Your task to perform on an android device: turn off priority inbox in the gmail app Image 0: 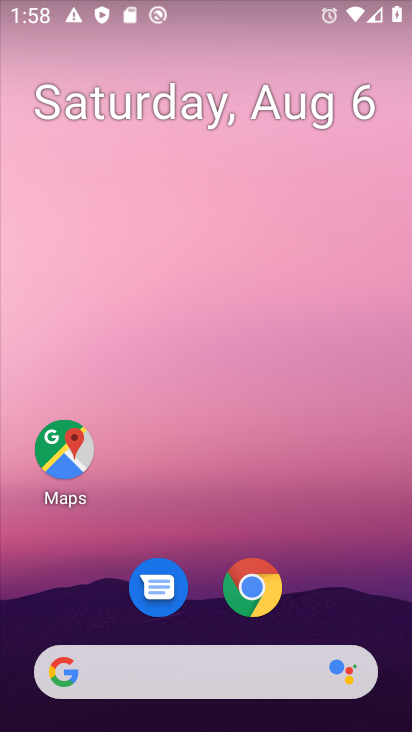
Step 0: drag from (207, 538) to (210, 215)
Your task to perform on an android device: turn off priority inbox in the gmail app Image 1: 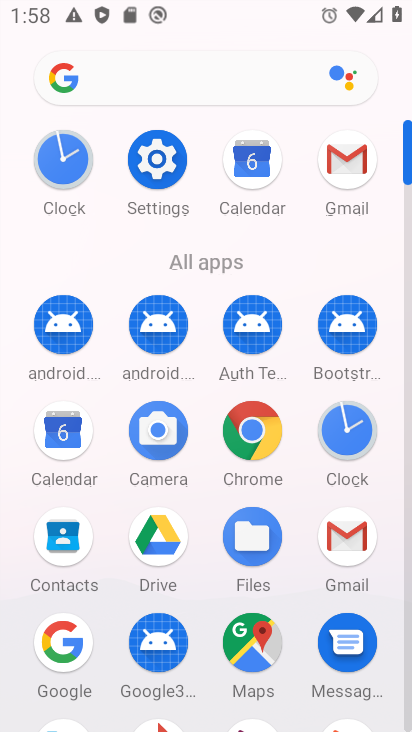
Step 1: click (329, 170)
Your task to perform on an android device: turn off priority inbox in the gmail app Image 2: 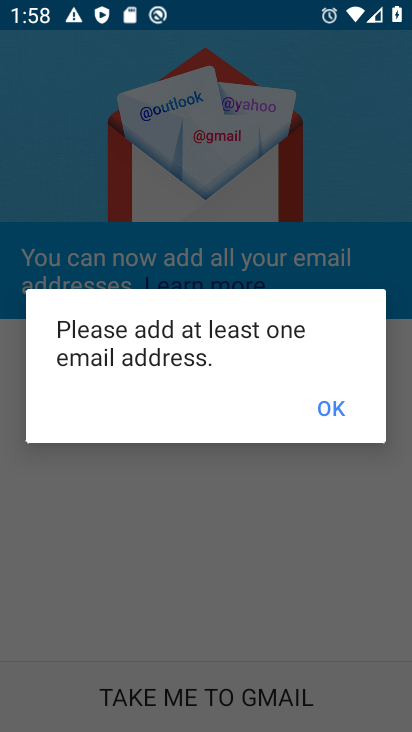
Step 2: click (340, 398)
Your task to perform on an android device: turn off priority inbox in the gmail app Image 3: 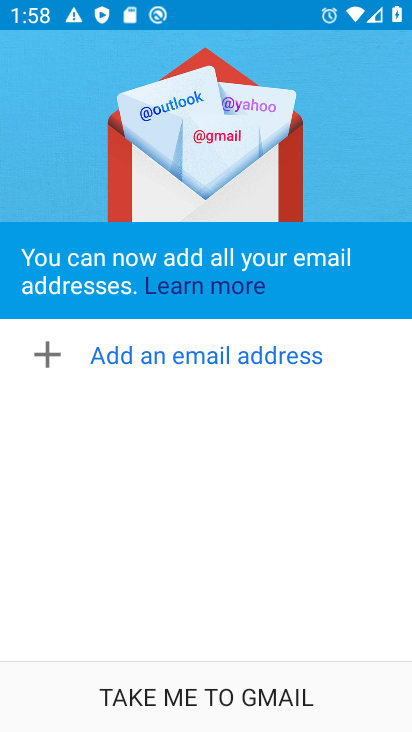
Step 3: task complete